Your task to perform on an android device: delete the emails in spam in the gmail app Image 0: 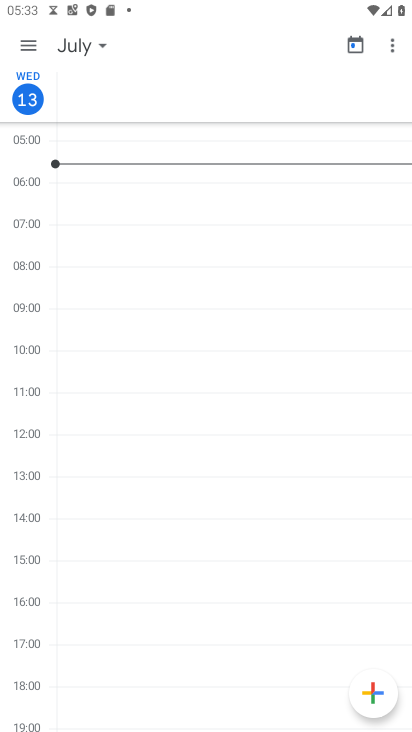
Step 0: press home button
Your task to perform on an android device: delete the emails in spam in the gmail app Image 1: 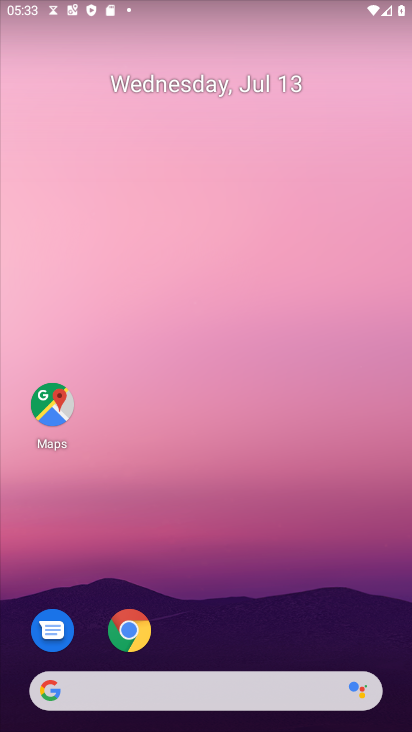
Step 1: drag from (213, 716) to (213, 135)
Your task to perform on an android device: delete the emails in spam in the gmail app Image 2: 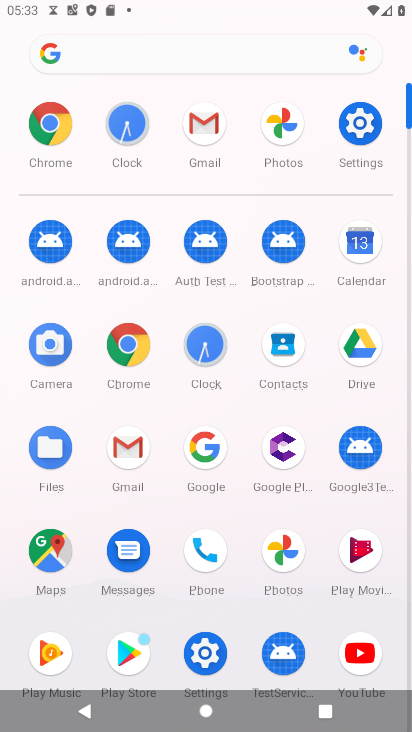
Step 2: click (144, 452)
Your task to perform on an android device: delete the emails in spam in the gmail app Image 3: 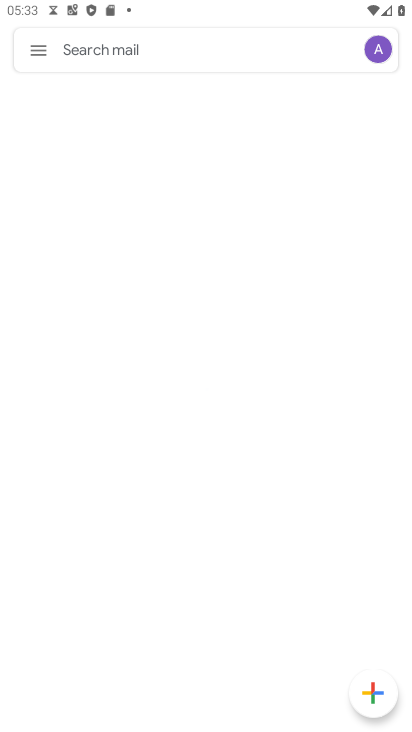
Step 3: click (48, 51)
Your task to perform on an android device: delete the emails in spam in the gmail app Image 4: 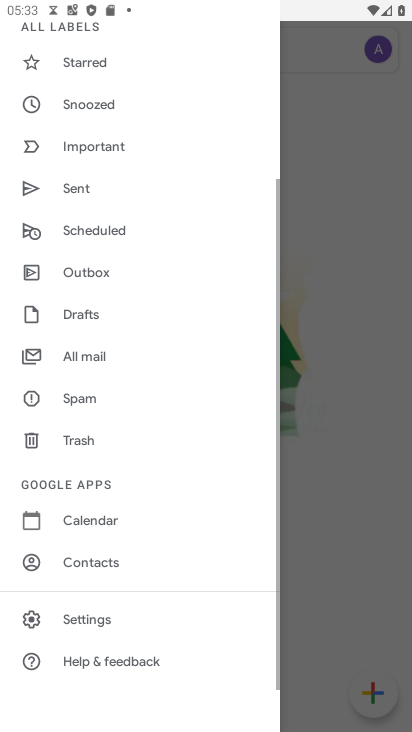
Step 4: click (92, 397)
Your task to perform on an android device: delete the emails in spam in the gmail app Image 5: 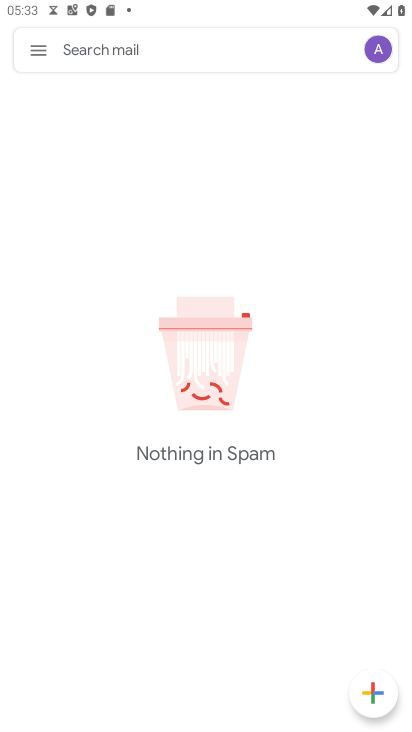
Step 5: task complete